Your task to perform on an android device: Go to location settings Image 0: 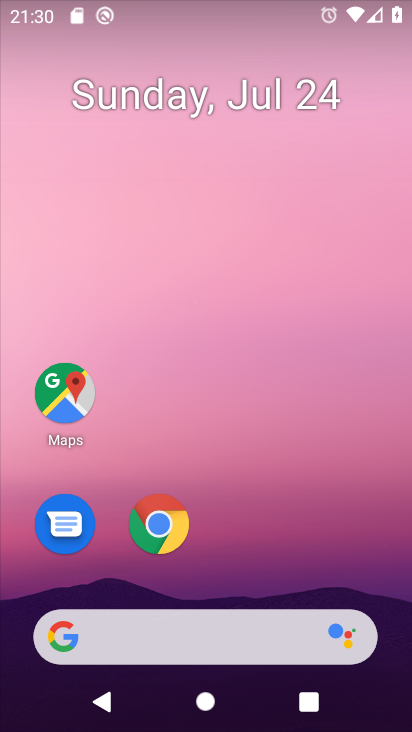
Step 0: drag from (294, 536) to (318, 36)
Your task to perform on an android device: Go to location settings Image 1: 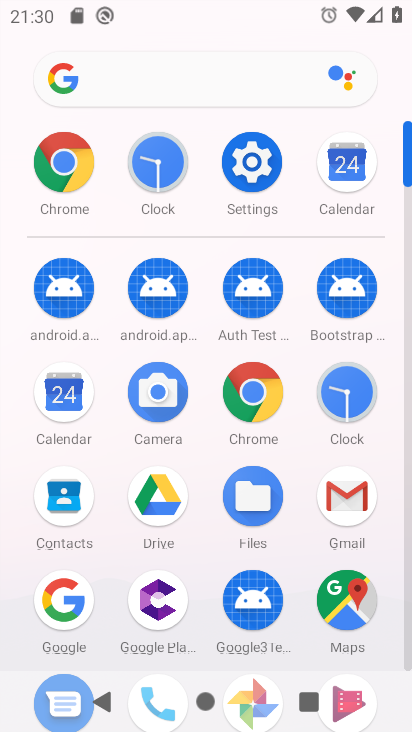
Step 1: click (256, 159)
Your task to perform on an android device: Go to location settings Image 2: 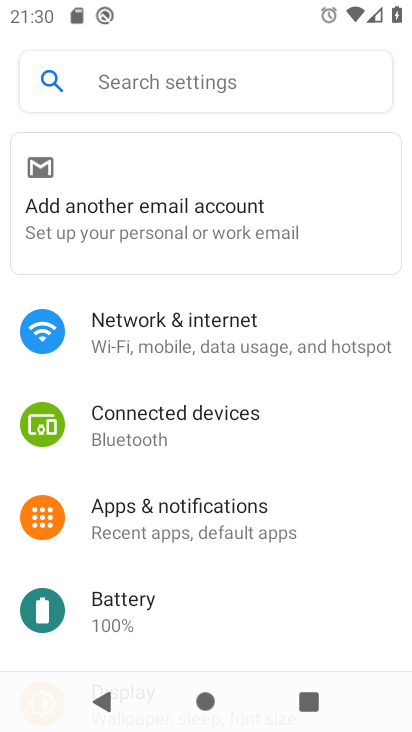
Step 2: drag from (234, 579) to (295, 176)
Your task to perform on an android device: Go to location settings Image 3: 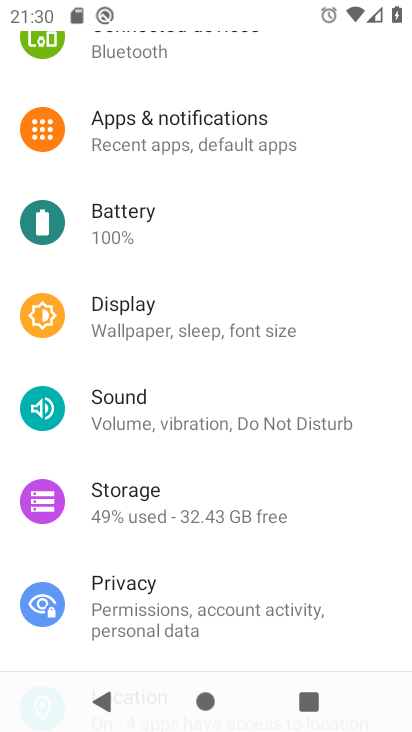
Step 3: drag from (229, 460) to (230, 116)
Your task to perform on an android device: Go to location settings Image 4: 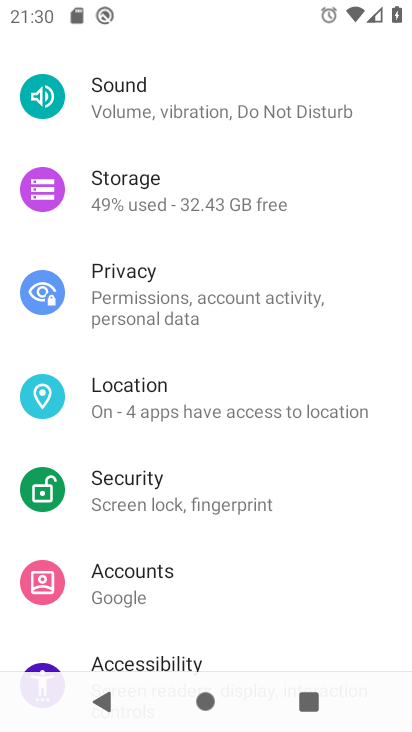
Step 4: click (205, 398)
Your task to perform on an android device: Go to location settings Image 5: 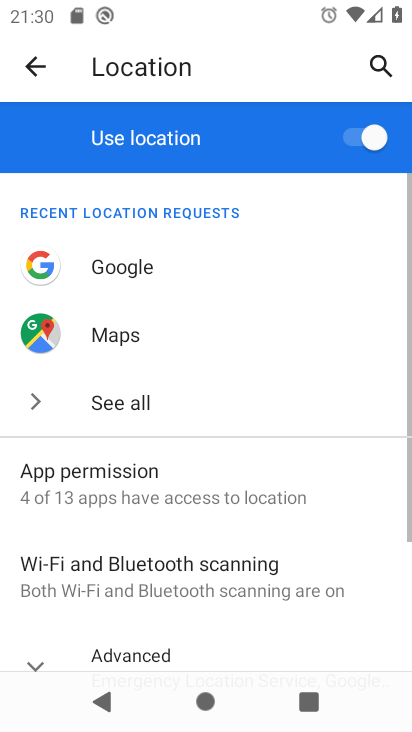
Step 5: task complete